Your task to perform on an android device: change notifications settings Image 0: 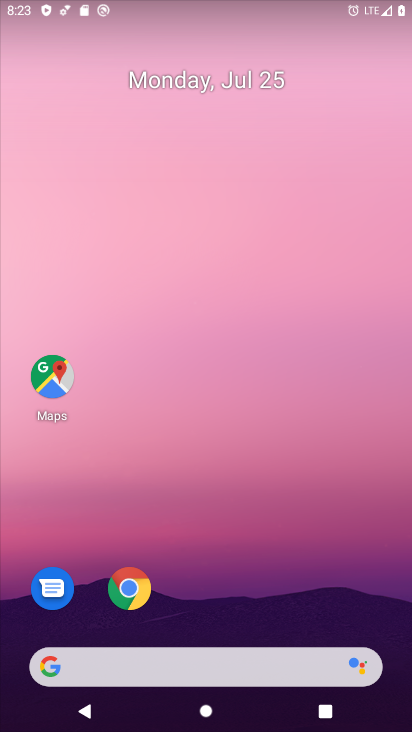
Step 0: press home button
Your task to perform on an android device: change notifications settings Image 1: 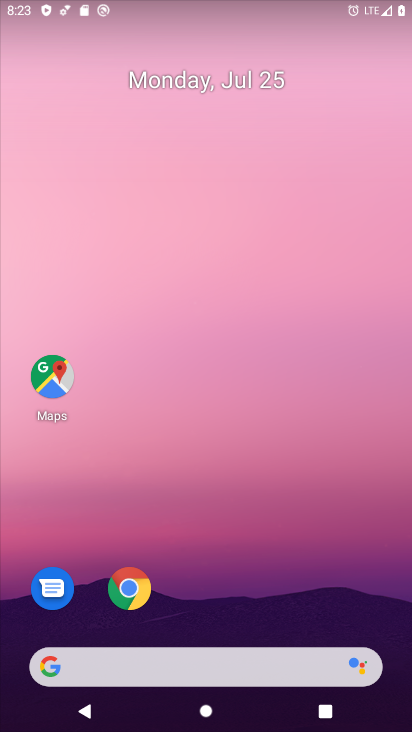
Step 1: drag from (367, 414) to (363, 120)
Your task to perform on an android device: change notifications settings Image 2: 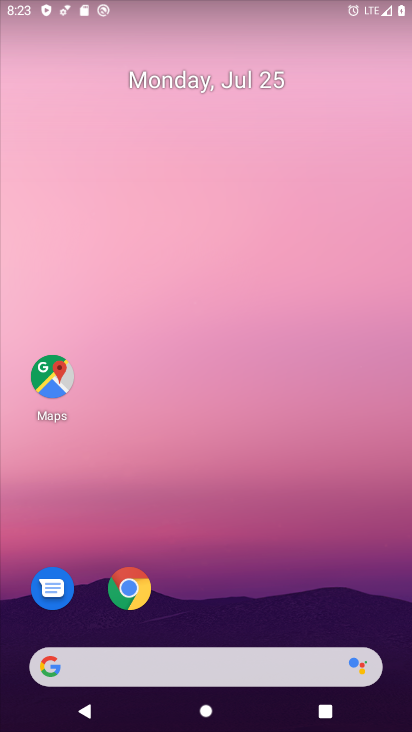
Step 2: drag from (368, 531) to (382, 76)
Your task to perform on an android device: change notifications settings Image 3: 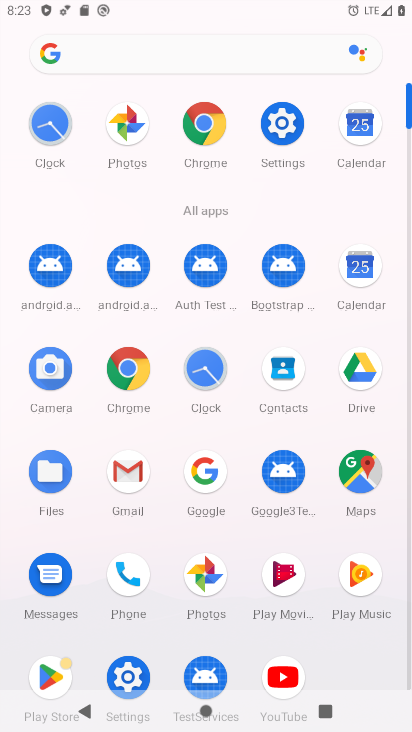
Step 3: click (278, 121)
Your task to perform on an android device: change notifications settings Image 4: 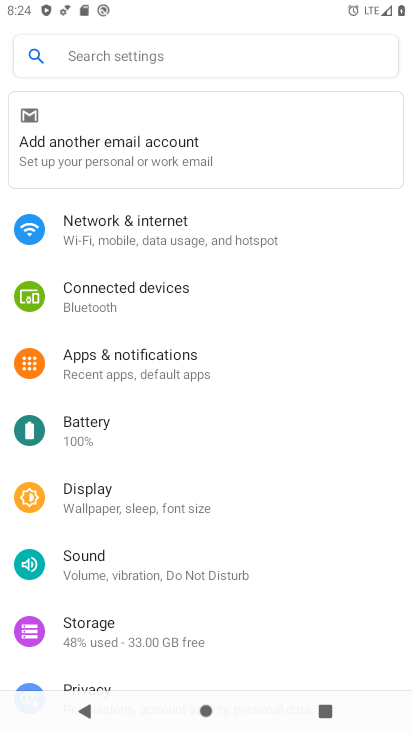
Step 4: drag from (305, 407) to (316, 328)
Your task to perform on an android device: change notifications settings Image 5: 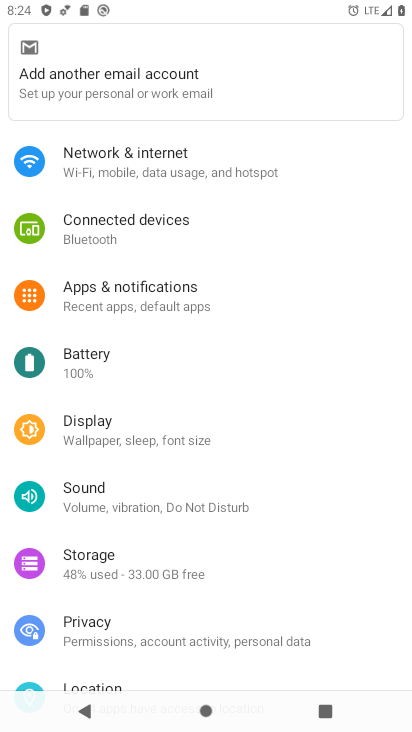
Step 5: drag from (319, 411) to (319, 331)
Your task to perform on an android device: change notifications settings Image 6: 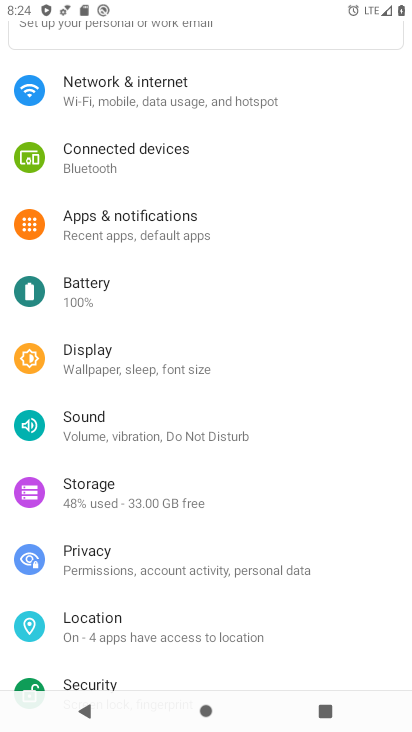
Step 6: drag from (316, 392) to (321, 315)
Your task to perform on an android device: change notifications settings Image 7: 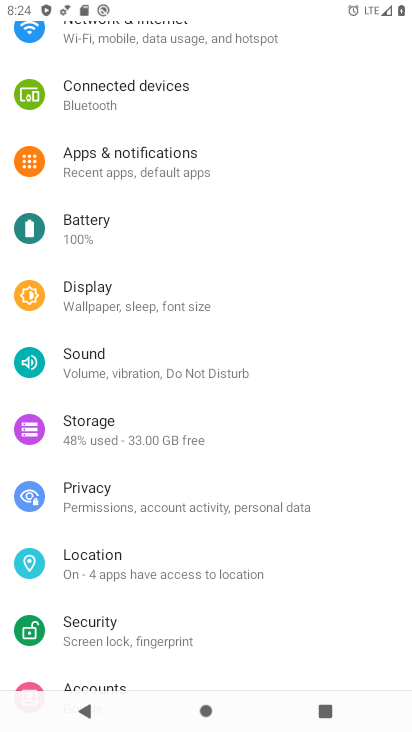
Step 7: click (203, 150)
Your task to perform on an android device: change notifications settings Image 8: 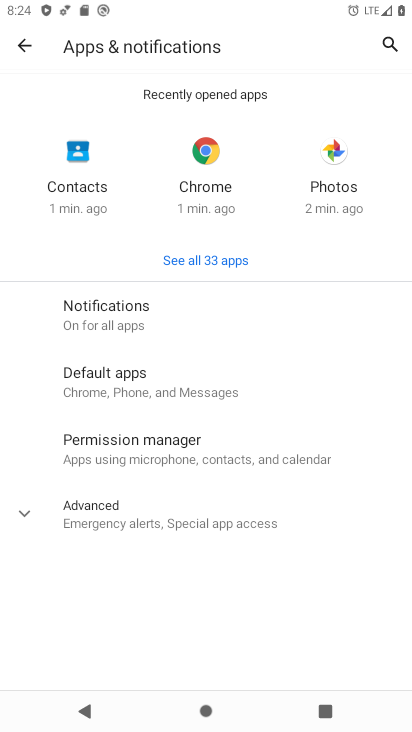
Step 8: click (193, 334)
Your task to perform on an android device: change notifications settings Image 9: 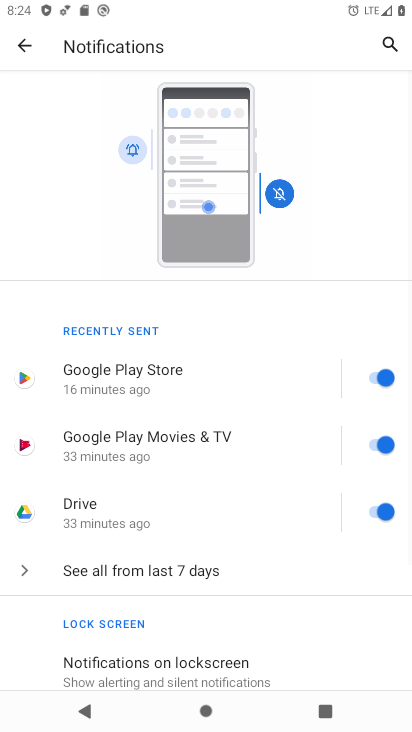
Step 9: drag from (275, 455) to (287, 390)
Your task to perform on an android device: change notifications settings Image 10: 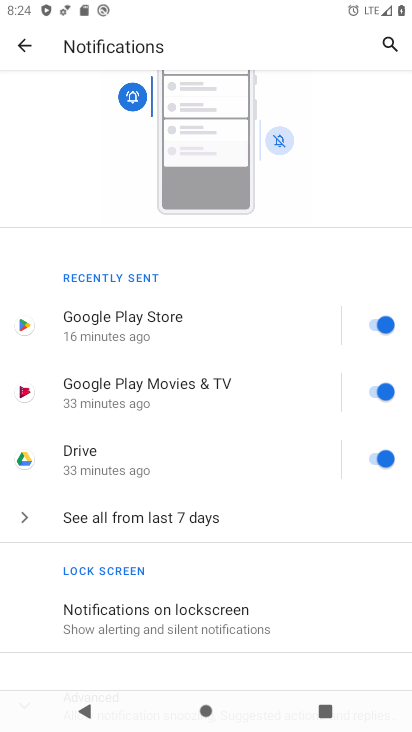
Step 10: click (377, 454)
Your task to perform on an android device: change notifications settings Image 11: 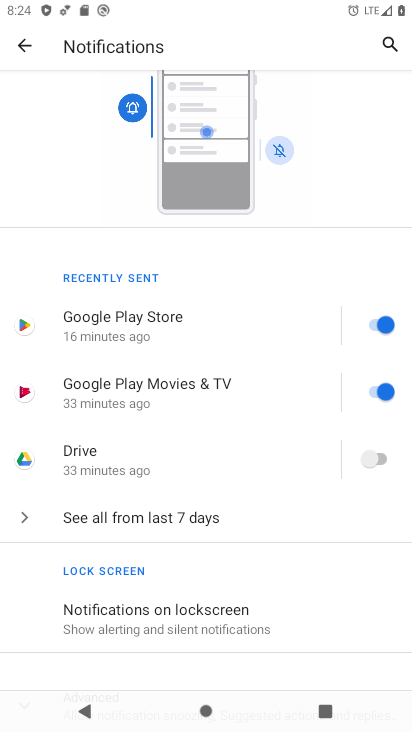
Step 11: click (374, 396)
Your task to perform on an android device: change notifications settings Image 12: 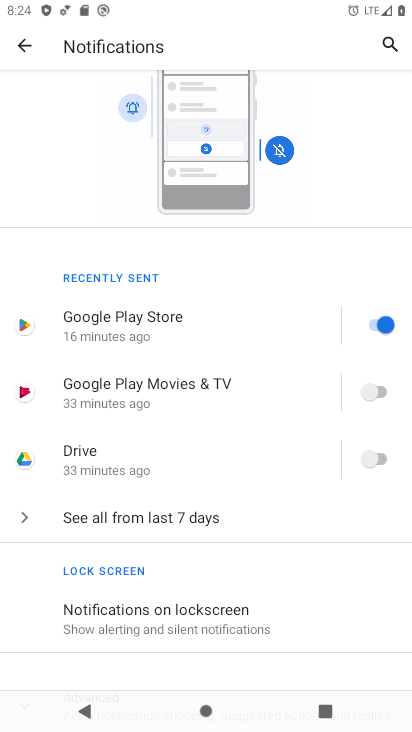
Step 12: click (382, 325)
Your task to perform on an android device: change notifications settings Image 13: 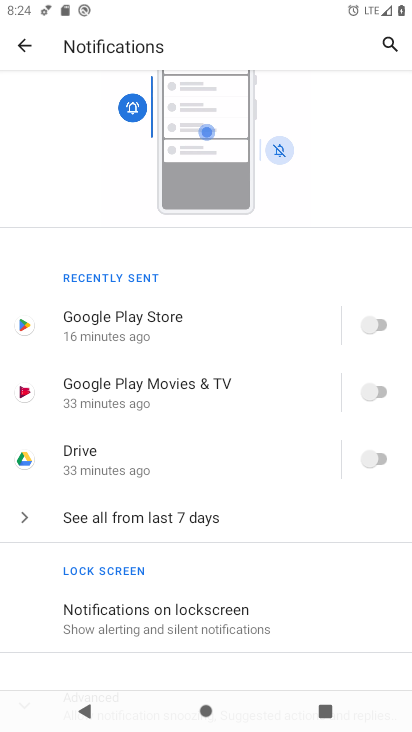
Step 13: task complete